Your task to perform on an android device: manage bookmarks in the chrome app Image 0: 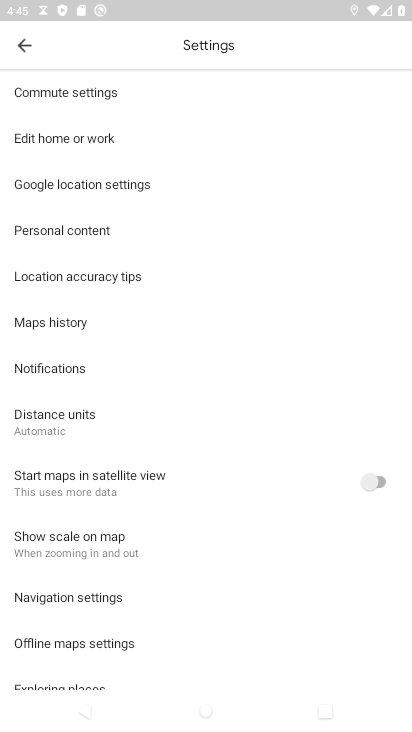
Step 0: press back button
Your task to perform on an android device: manage bookmarks in the chrome app Image 1: 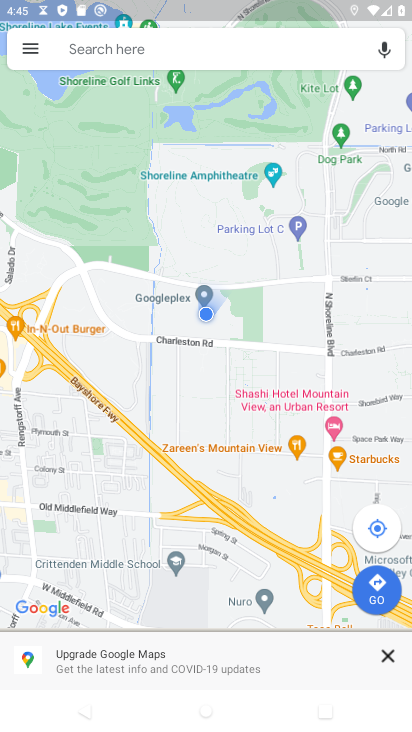
Step 1: press home button
Your task to perform on an android device: manage bookmarks in the chrome app Image 2: 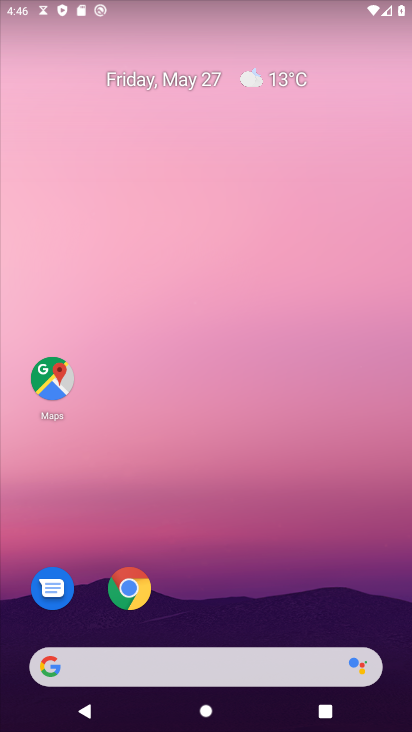
Step 2: click (125, 601)
Your task to perform on an android device: manage bookmarks in the chrome app Image 3: 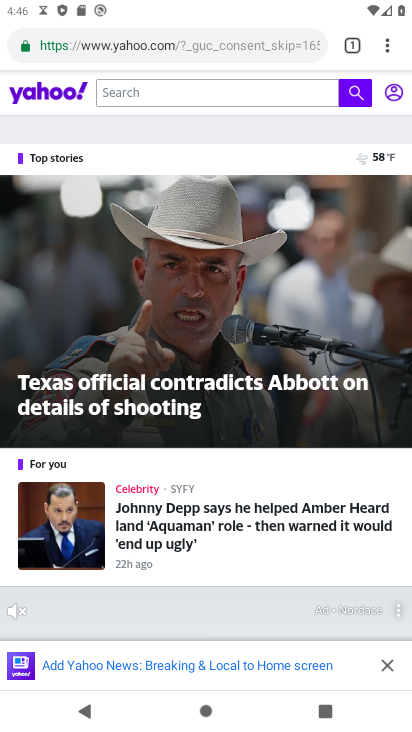
Step 3: task complete